Your task to perform on an android device: turn off translation in the chrome app Image 0: 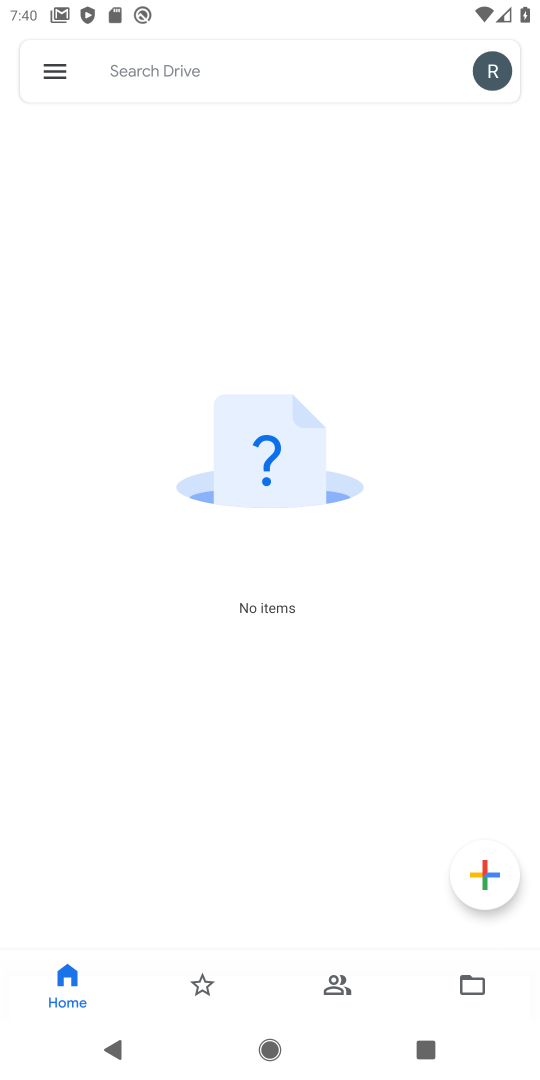
Step 0: press home button
Your task to perform on an android device: turn off translation in the chrome app Image 1: 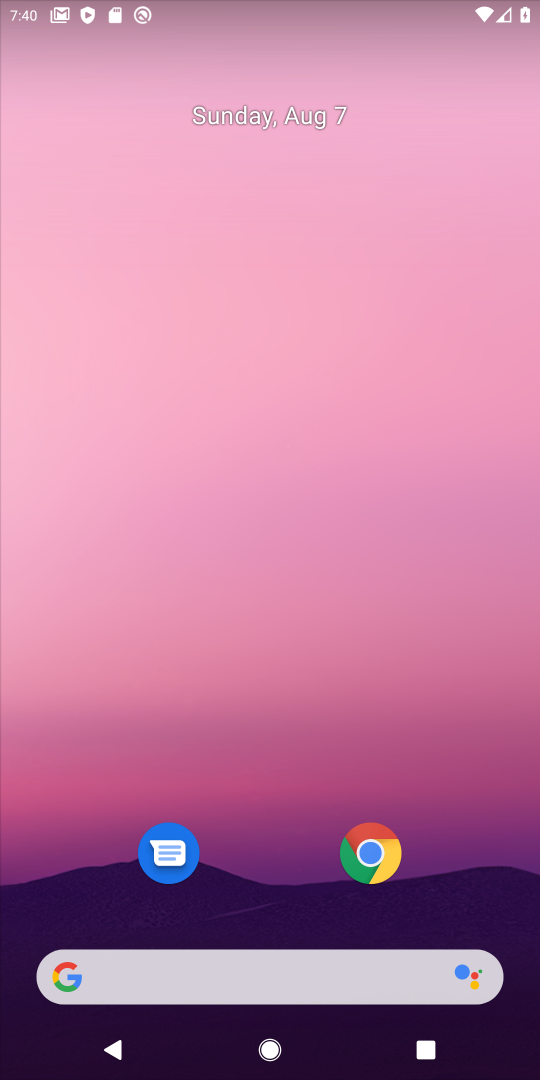
Step 1: click (361, 845)
Your task to perform on an android device: turn off translation in the chrome app Image 2: 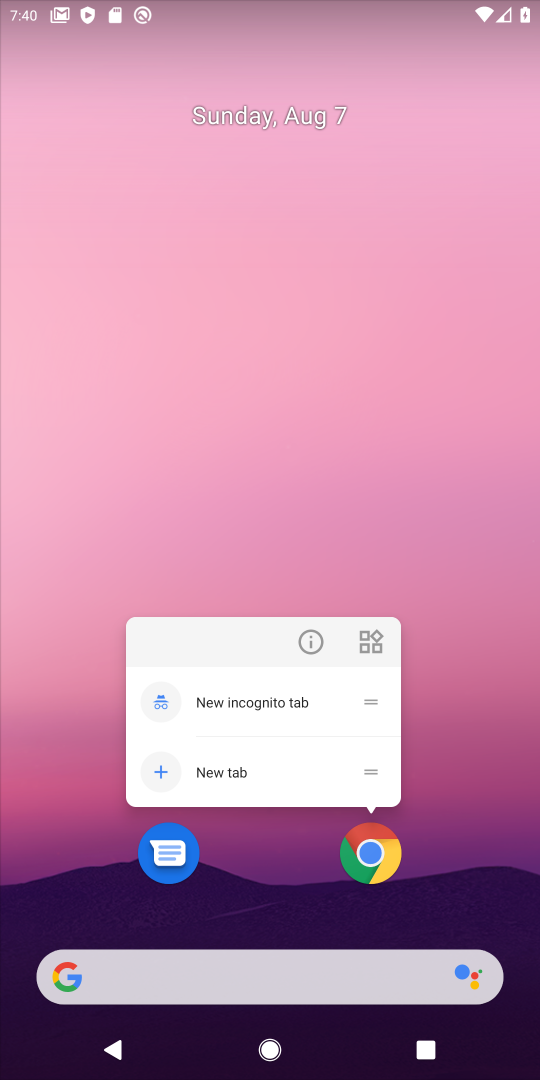
Step 2: click (373, 869)
Your task to perform on an android device: turn off translation in the chrome app Image 3: 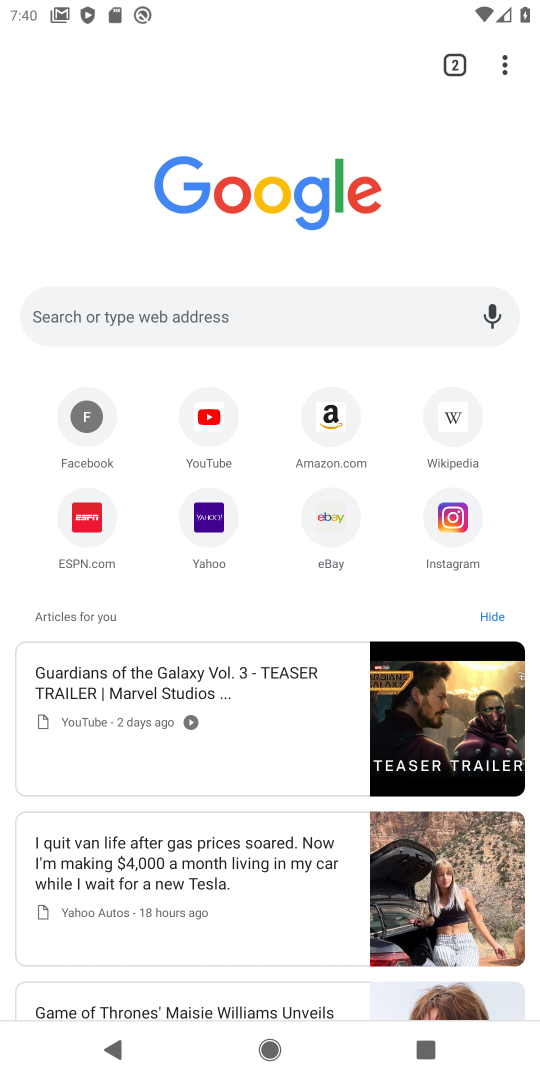
Step 3: click (500, 48)
Your task to perform on an android device: turn off translation in the chrome app Image 4: 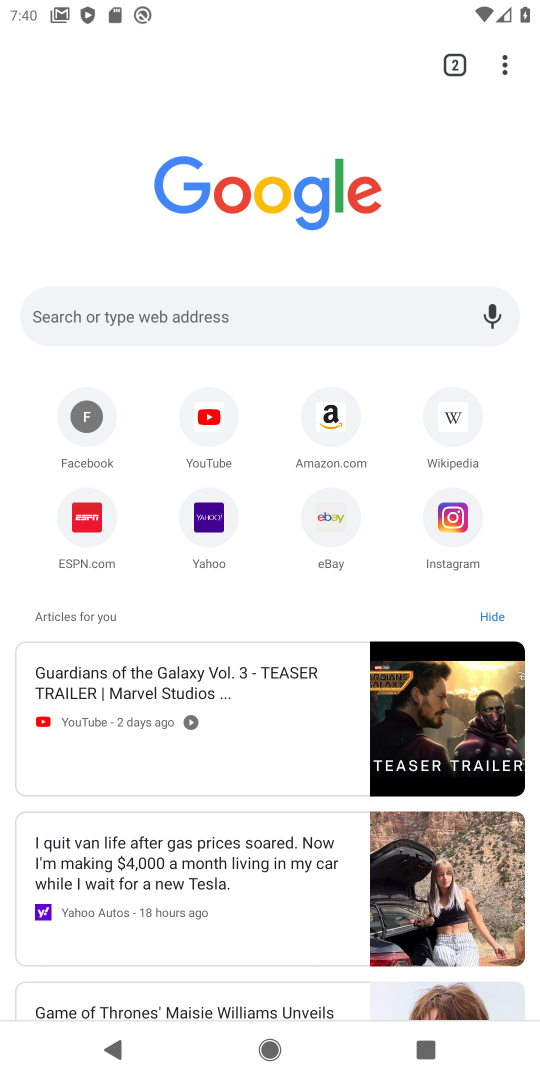
Step 4: click (500, 60)
Your task to perform on an android device: turn off translation in the chrome app Image 5: 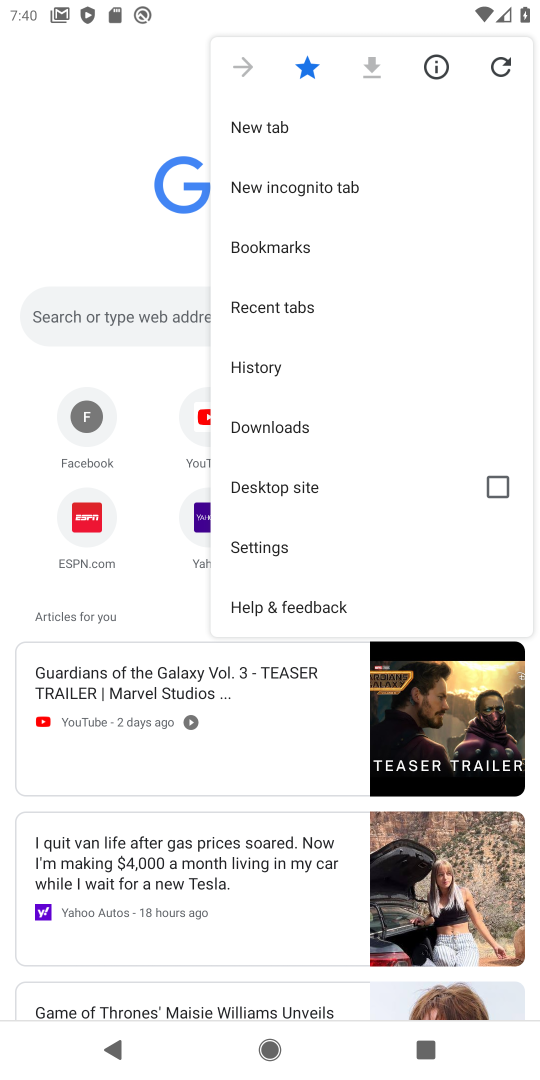
Step 5: click (248, 558)
Your task to perform on an android device: turn off translation in the chrome app Image 6: 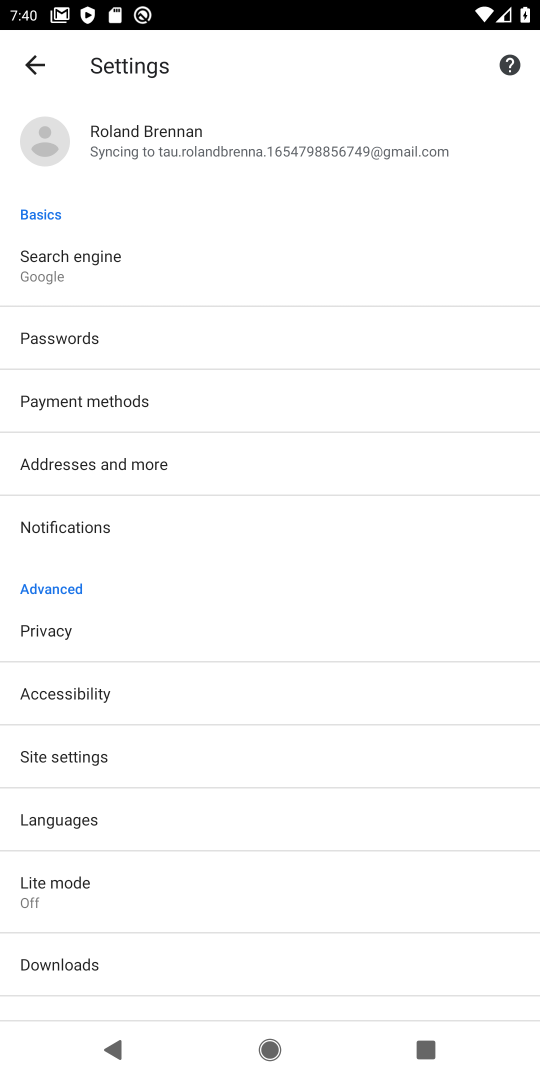
Step 6: click (86, 814)
Your task to perform on an android device: turn off translation in the chrome app Image 7: 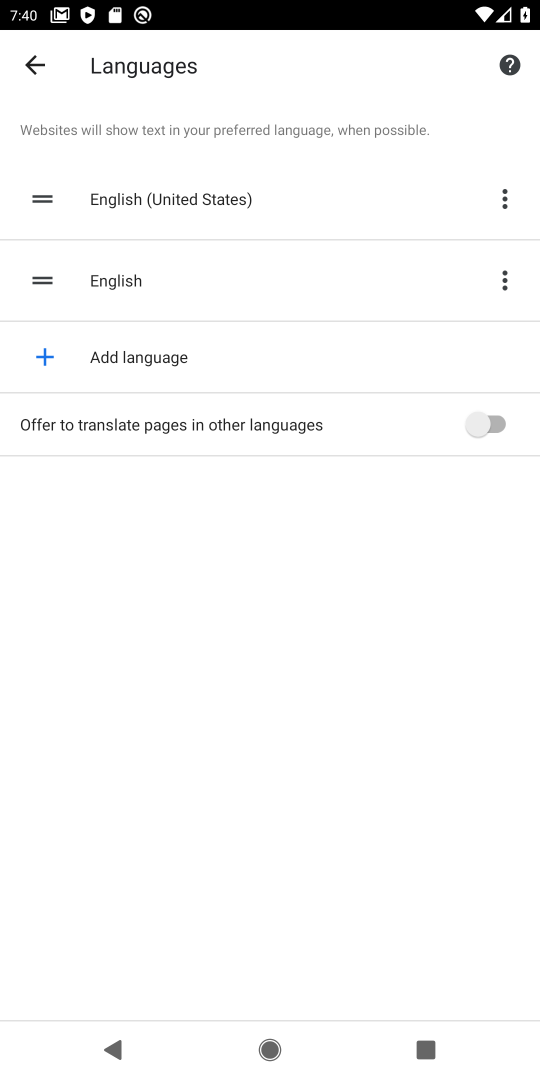
Step 7: task complete